Your task to perform on an android device: turn off notifications settings in the gmail app Image 0: 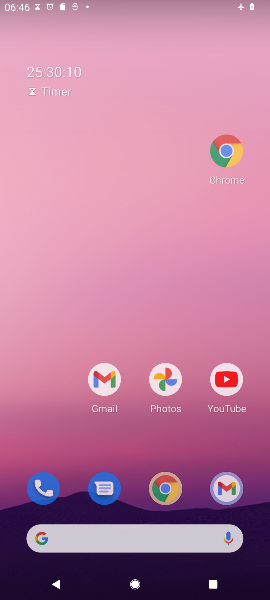
Step 0: press home button
Your task to perform on an android device: turn off notifications settings in the gmail app Image 1: 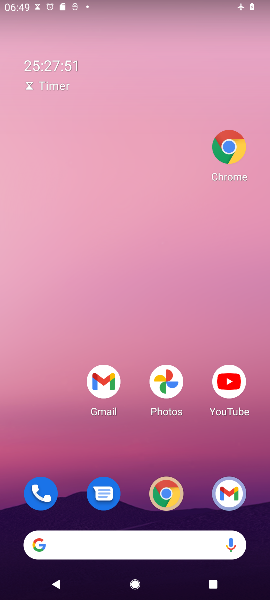
Step 1: click (93, 385)
Your task to perform on an android device: turn off notifications settings in the gmail app Image 2: 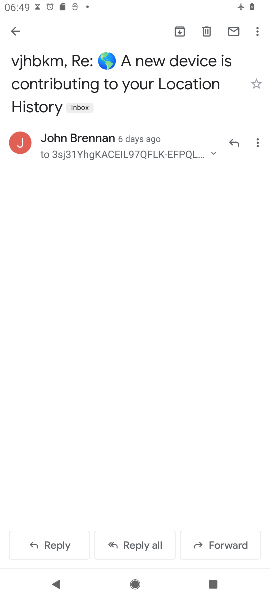
Step 2: press back button
Your task to perform on an android device: turn off notifications settings in the gmail app Image 3: 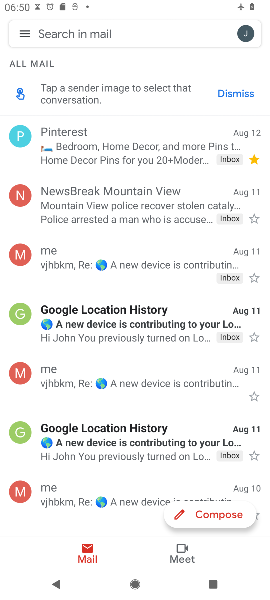
Step 3: click (28, 35)
Your task to perform on an android device: turn off notifications settings in the gmail app Image 4: 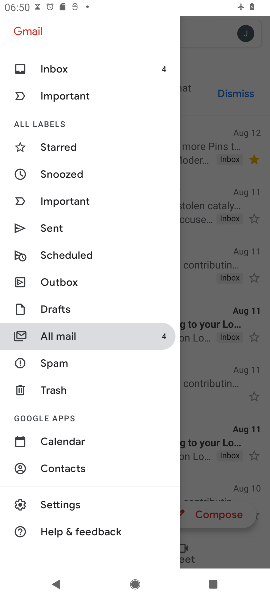
Step 4: click (70, 504)
Your task to perform on an android device: turn off notifications settings in the gmail app Image 5: 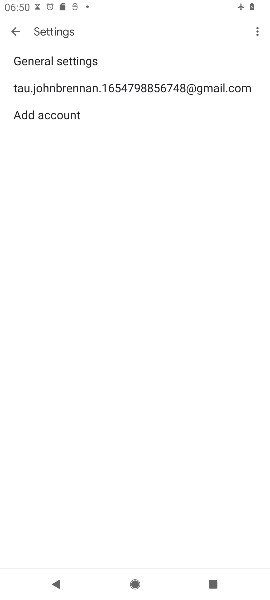
Step 5: click (133, 88)
Your task to perform on an android device: turn off notifications settings in the gmail app Image 6: 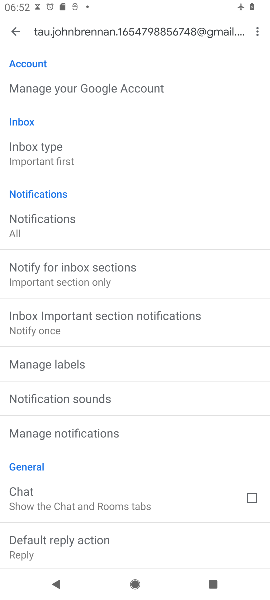
Step 6: click (73, 435)
Your task to perform on an android device: turn off notifications settings in the gmail app Image 7: 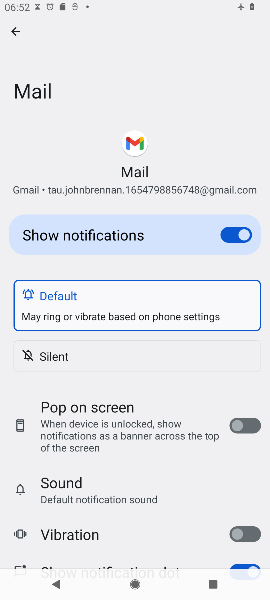
Step 7: click (248, 233)
Your task to perform on an android device: turn off notifications settings in the gmail app Image 8: 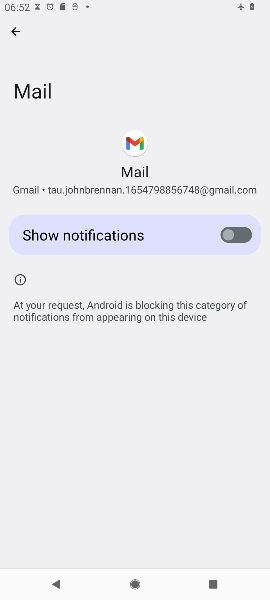
Step 8: task complete